Your task to perform on an android device: open app "WhatsApp Messenger" Image 0: 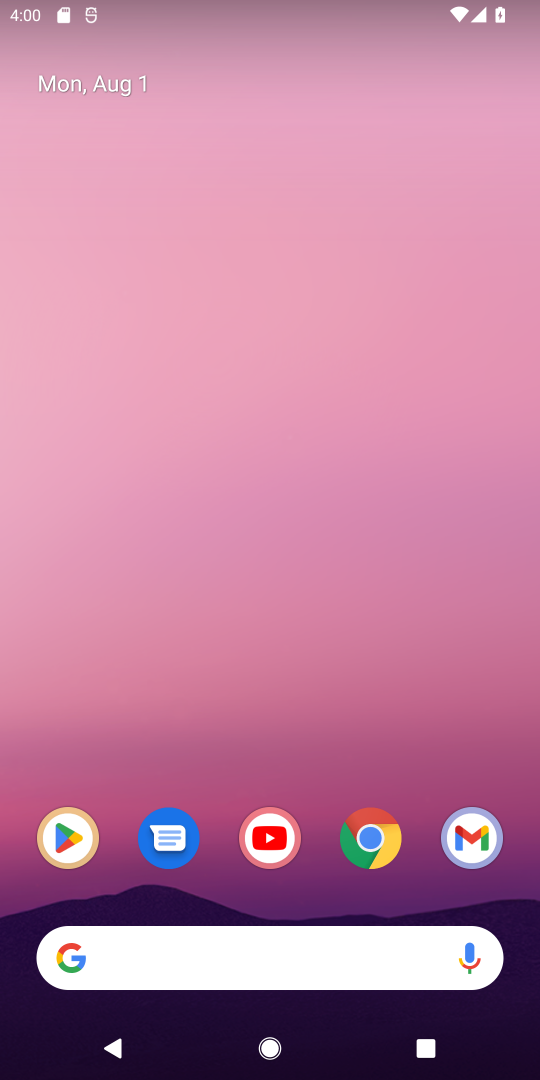
Step 0: click (61, 833)
Your task to perform on an android device: open app "WhatsApp Messenger" Image 1: 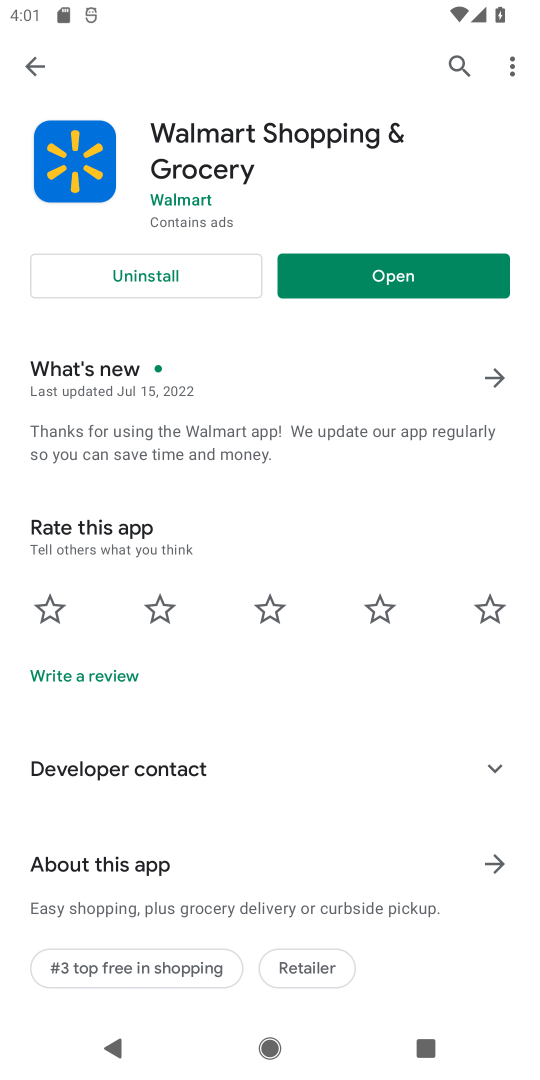
Step 1: click (447, 54)
Your task to perform on an android device: open app "WhatsApp Messenger" Image 2: 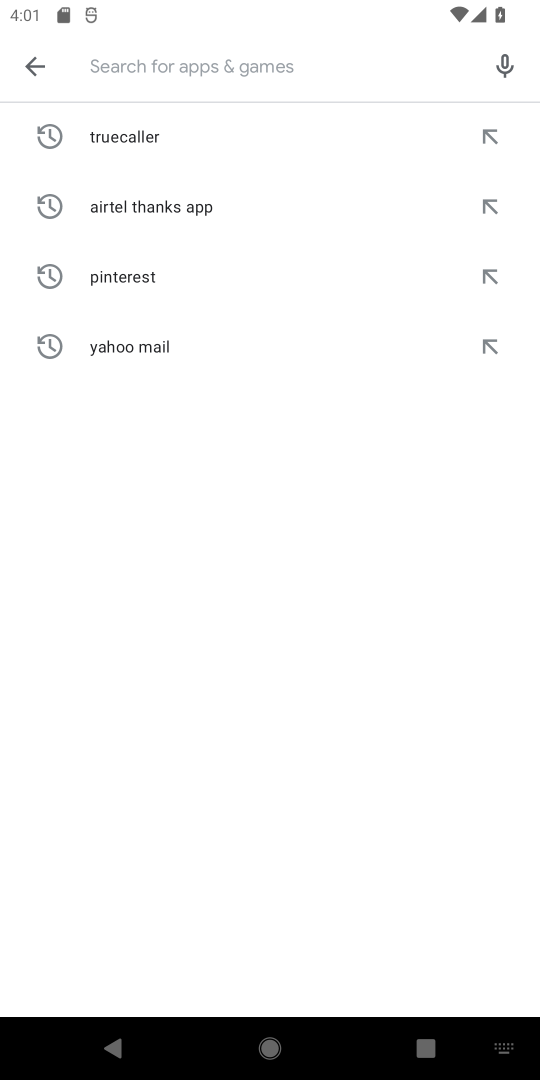
Step 2: type "WhatsApp Messenger"
Your task to perform on an android device: open app "WhatsApp Messenger" Image 3: 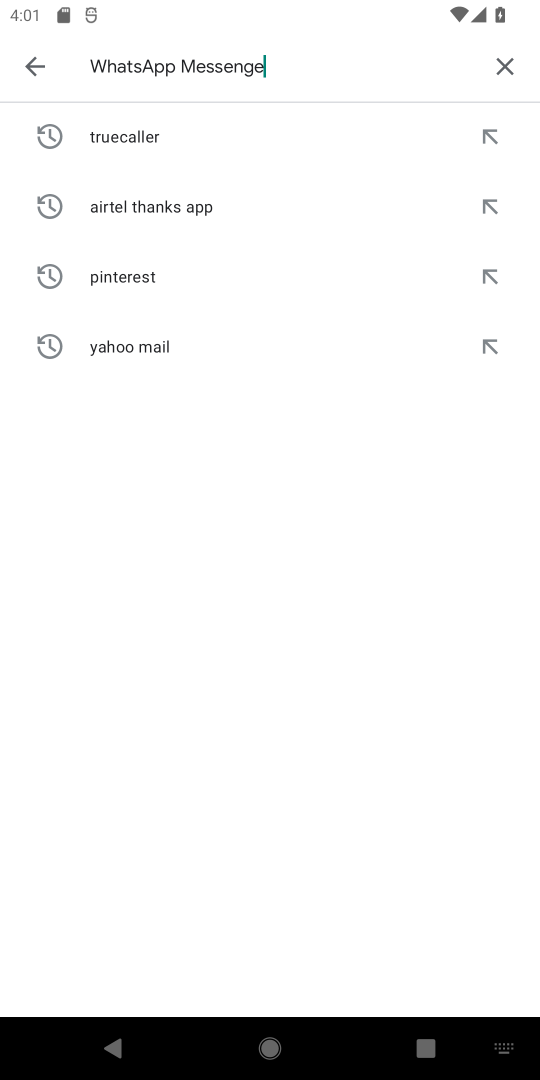
Step 3: type ""
Your task to perform on an android device: open app "WhatsApp Messenger" Image 4: 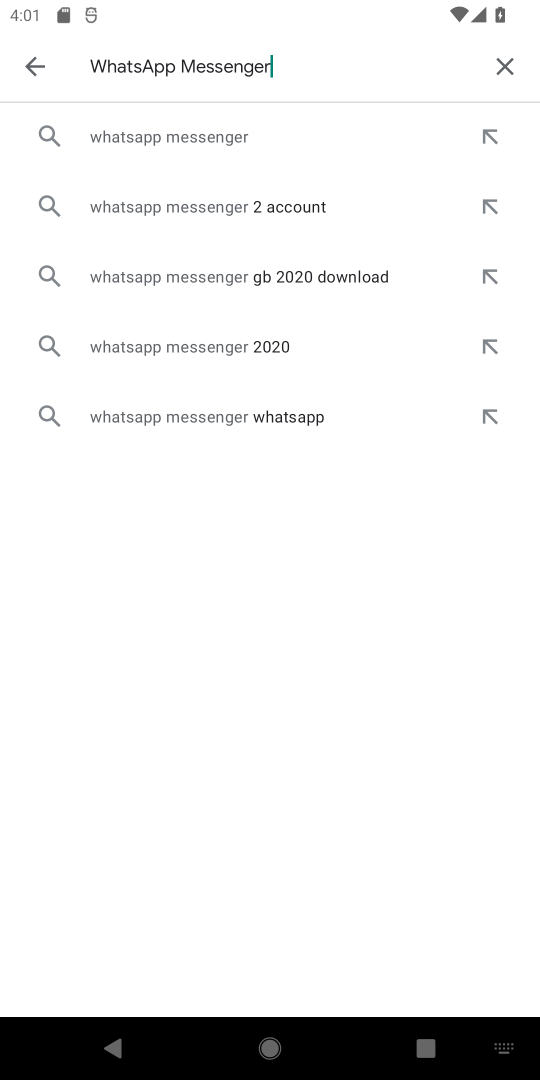
Step 4: click (231, 124)
Your task to perform on an android device: open app "WhatsApp Messenger" Image 5: 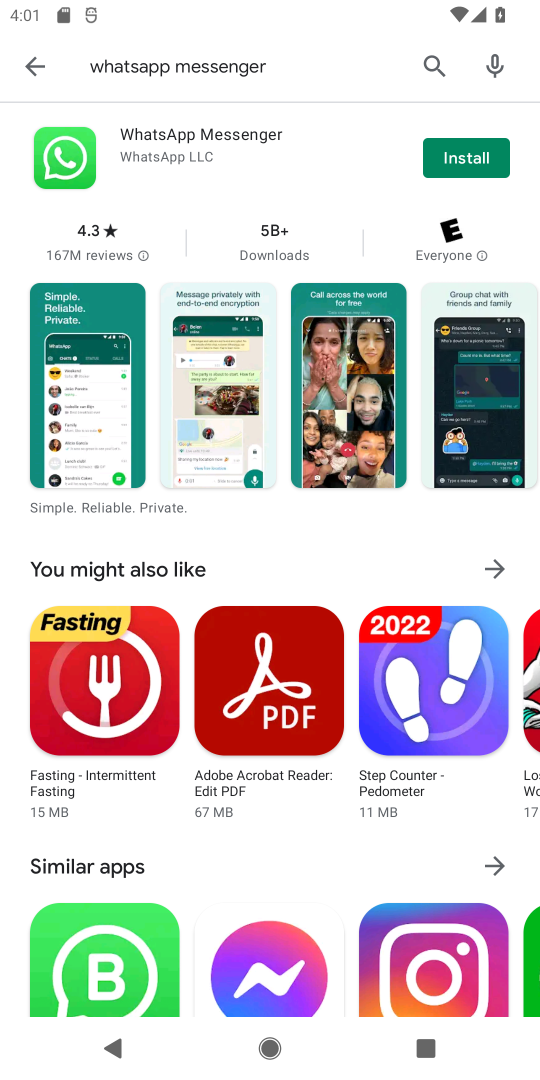
Step 5: click (133, 161)
Your task to perform on an android device: open app "WhatsApp Messenger" Image 6: 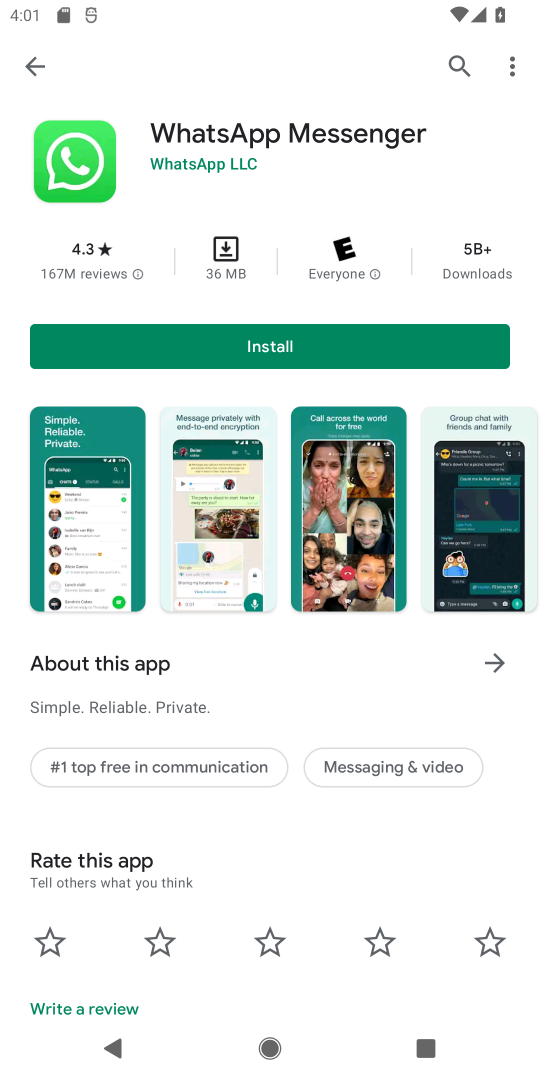
Step 6: task complete